Your task to perform on an android device: open app "Skype" (install if not already installed) Image 0: 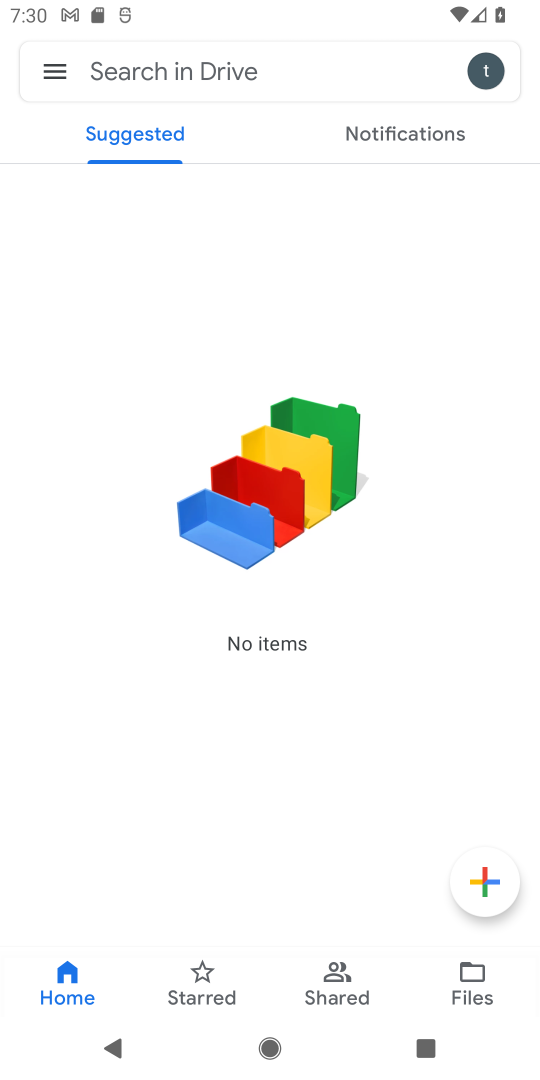
Step 0: press home button
Your task to perform on an android device: open app "Skype" (install if not already installed) Image 1: 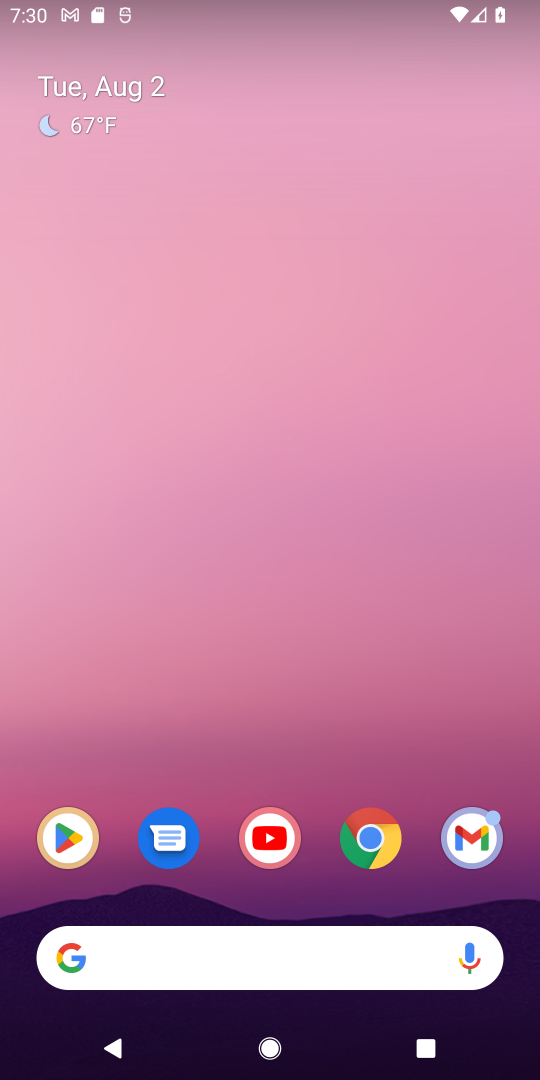
Step 1: click (76, 842)
Your task to perform on an android device: open app "Skype" (install if not already installed) Image 2: 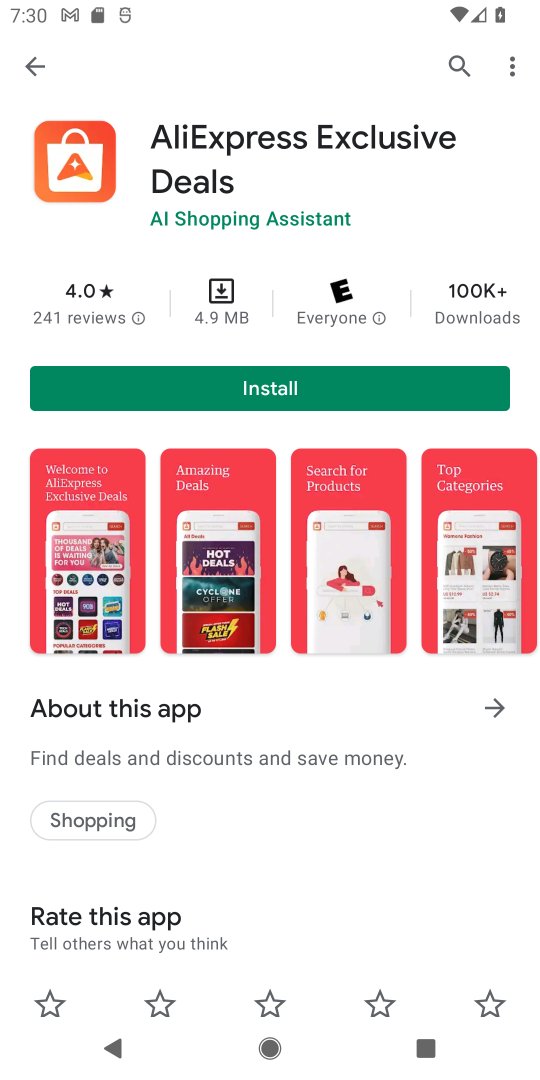
Step 2: click (453, 55)
Your task to perform on an android device: open app "Skype" (install if not already installed) Image 3: 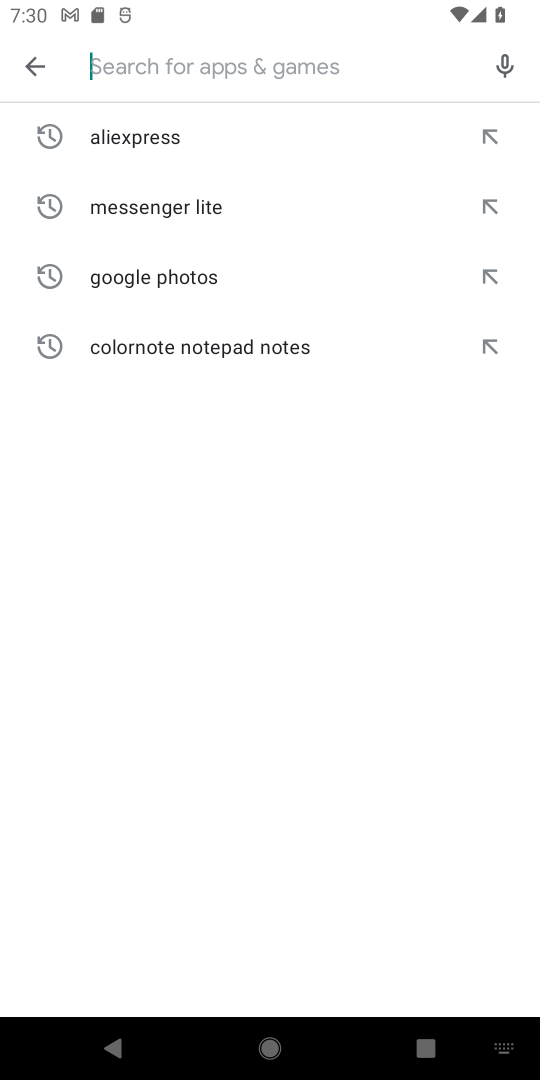
Step 3: type "skype"
Your task to perform on an android device: open app "Skype" (install if not already installed) Image 4: 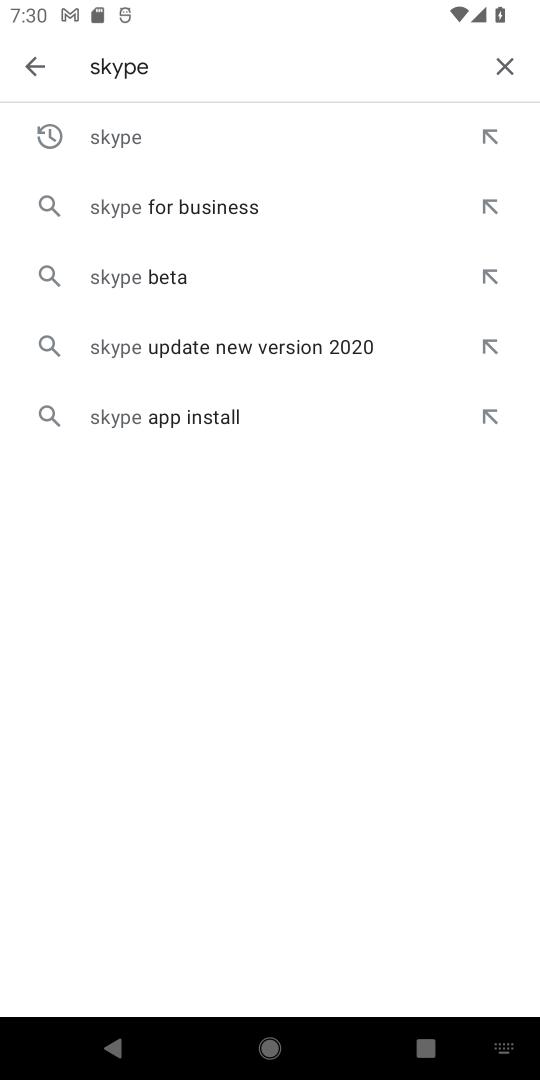
Step 4: click (110, 146)
Your task to perform on an android device: open app "Skype" (install if not already installed) Image 5: 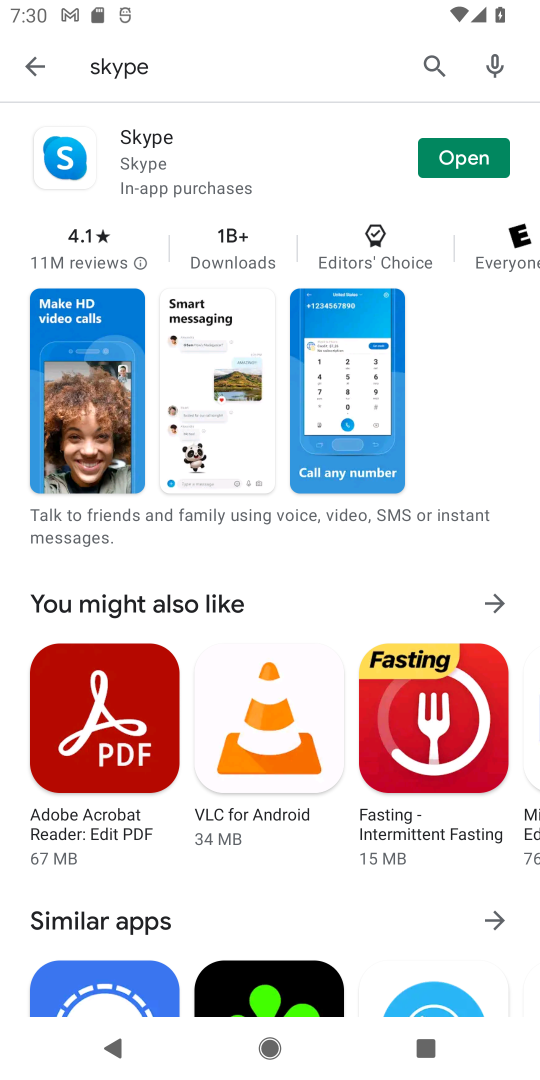
Step 5: click (152, 127)
Your task to perform on an android device: open app "Skype" (install if not already installed) Image 6: 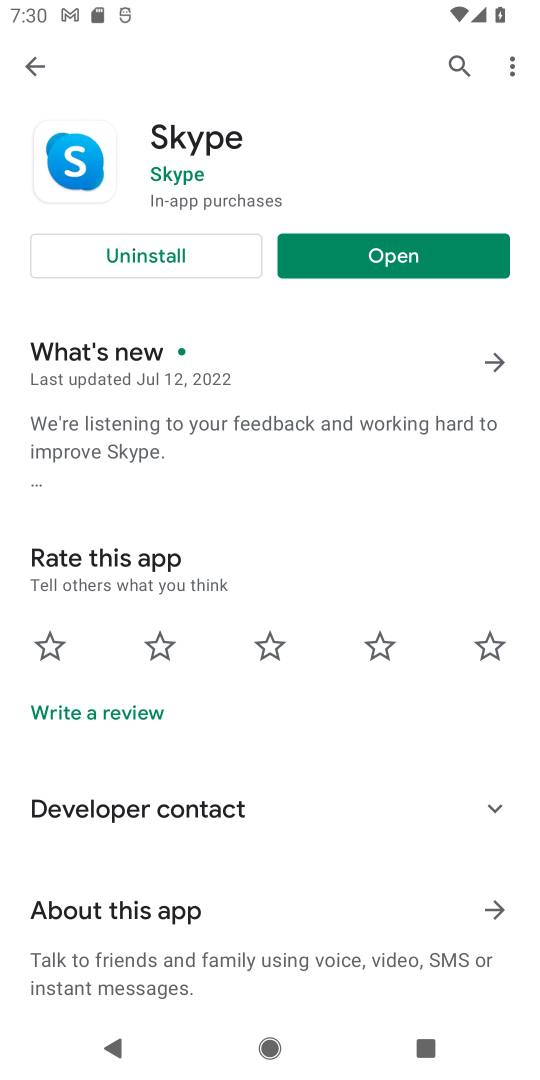
Step 6: click (427, 244)
Your task to perform on an android device: open app "Skype" (install if not already installed) Image 7: 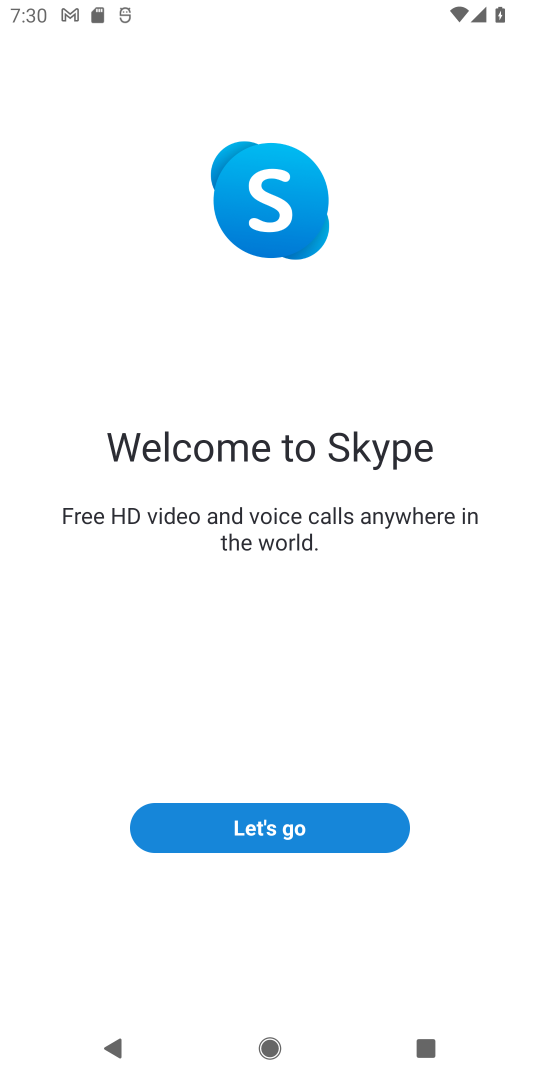
Step 7: task complete